Your task to perform on an android device: turn on translation in the chrome app Image 0: 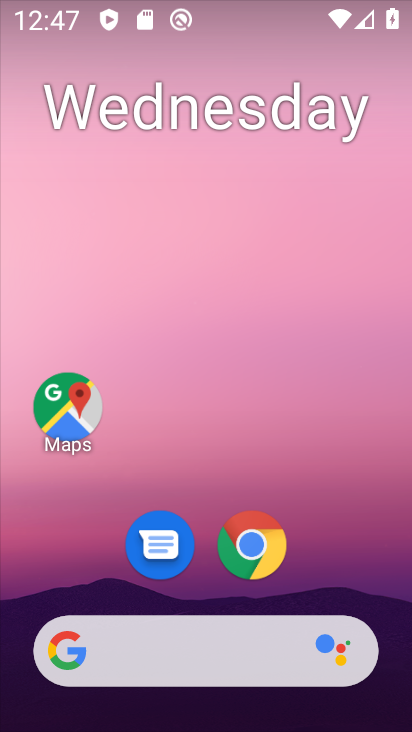
Step 0: drag from (208, 591) to (216, 164)
Your task to perform on an android device: turn on translation in the chrome app Image 1: 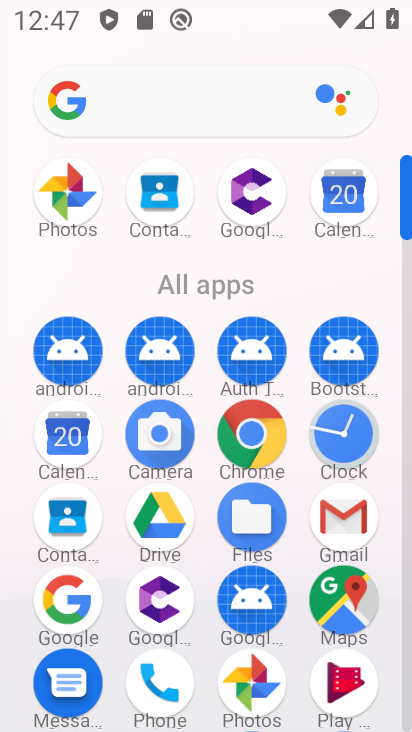
Step 1: click (250, 444)
Your task to perform on an android device: turn on translation in the chrome app Image 2: 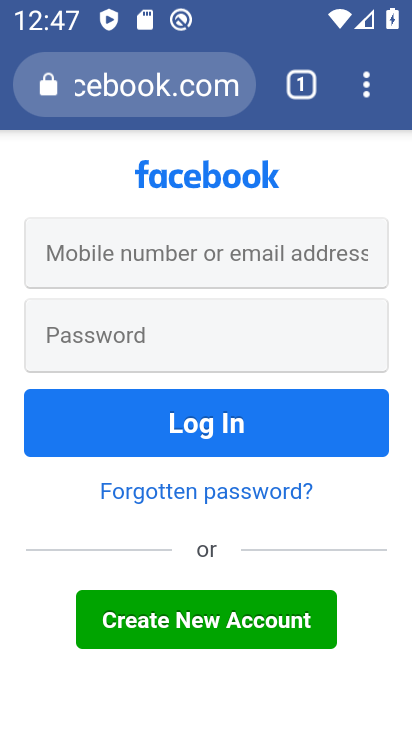
Step 2: click (362, 91)
Your task to perform on an android device: turn on translation in the chrome app Image 3: 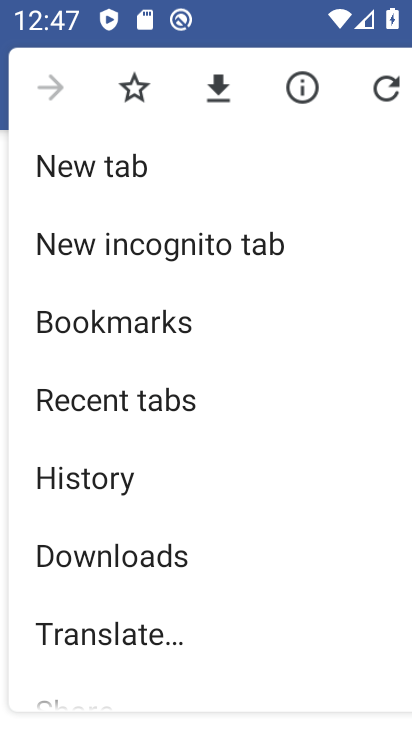
Step 3: drag from (98, 590) to (137, 264)
Your task to perform on an android device: turn on translation in the chrome app Image 4: 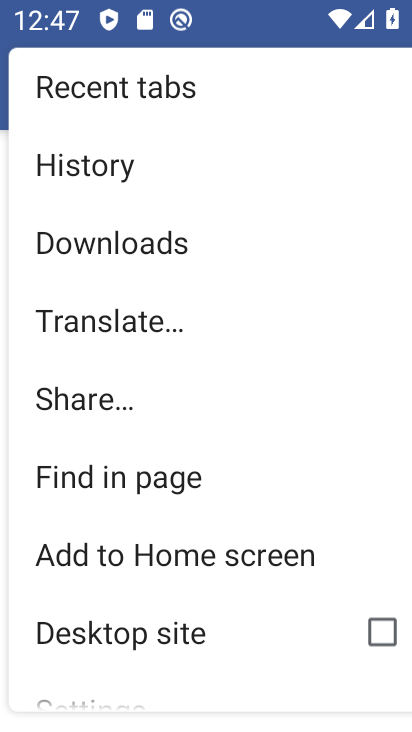
Step 4: drag from (128, 618) to (134, 478)
Your task to perform on an android device: turn on translation in the chrome app Image 5: 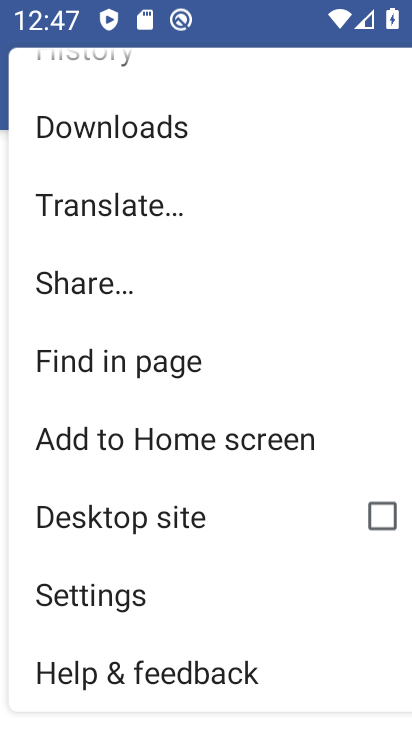
Step 5: click (130, 593)
Your task to perform on an android device: turn on translation in the chrome app Image 6: 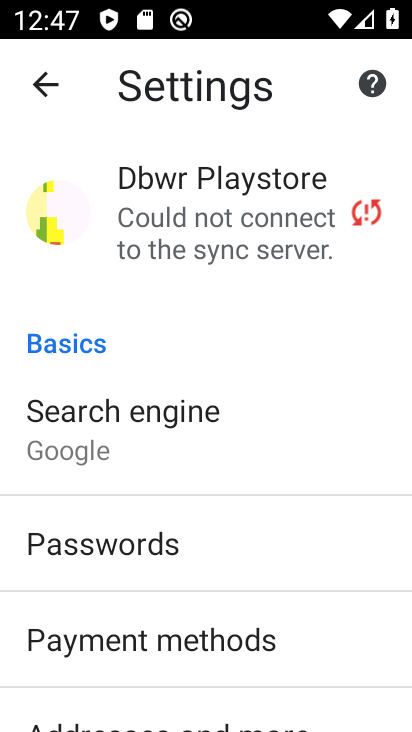
Step 6: drag from (214, 513) to (243, 151)
Your task to perform on an android device: turn on translation in the chrome app Image 7: 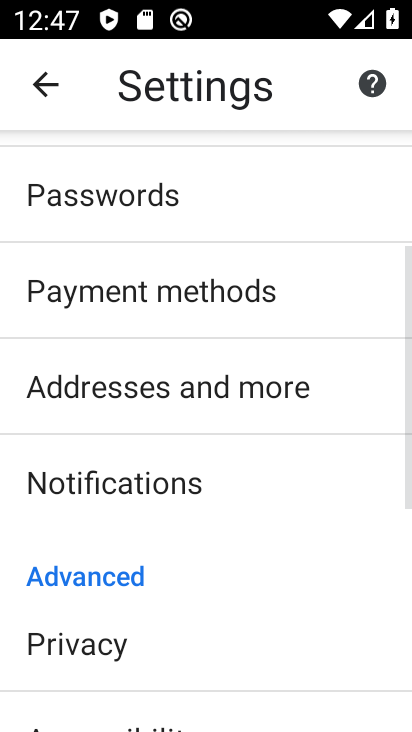
Step 7: drag from (190, 498) to (227, 362)
Your task to perform on an android device: turn on translation in the chrome app Image 8: 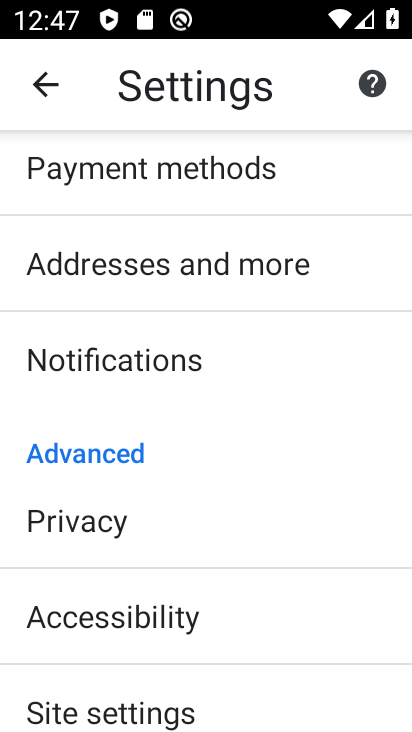
Step 8: drag from (98, 641) to (86, 391)
Your task to perform on an android device: turn on translation in the chrome app Image 9: 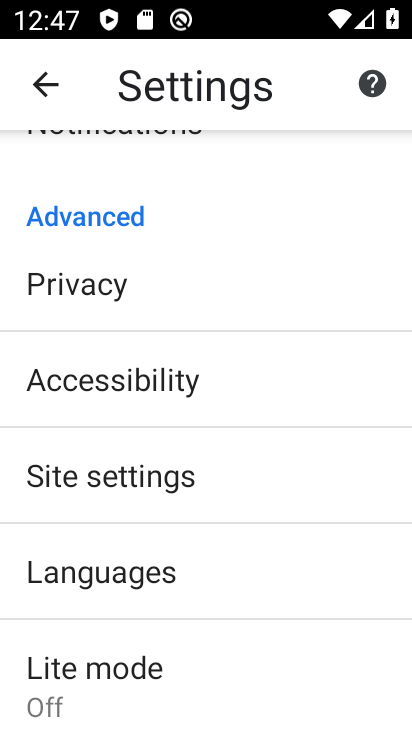
Step 9: click (131, 586)
Your task to perform on an android device: turn on translation in the chrome app Image 10: 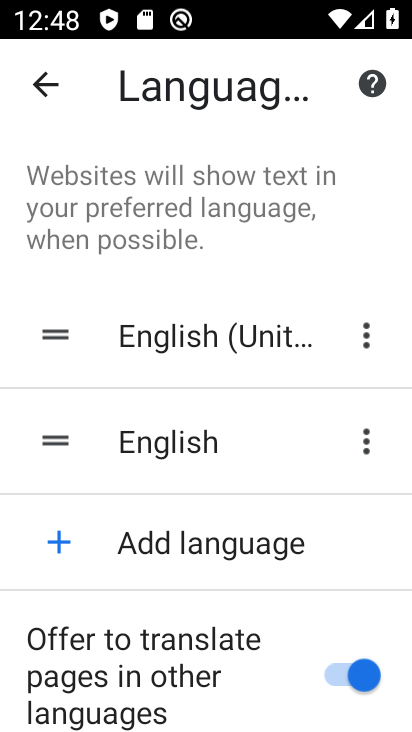
Step 10: task complete